Your task to perform on an android device: Open Yahoo.com Image 0: 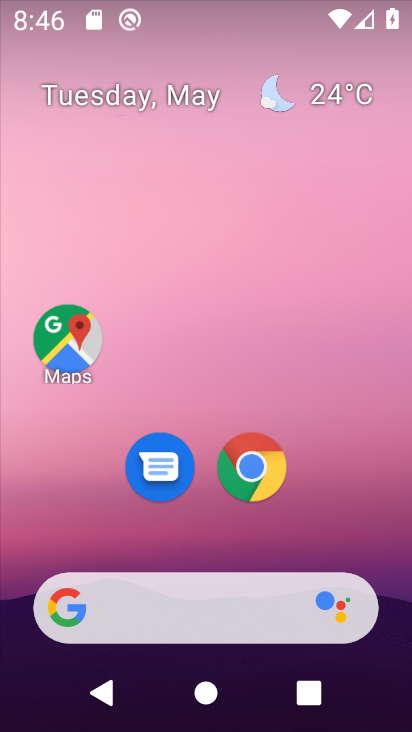
Step 0: click (234, 463)
Your task to perform on an android device: Open Yahoo.com Image 1: 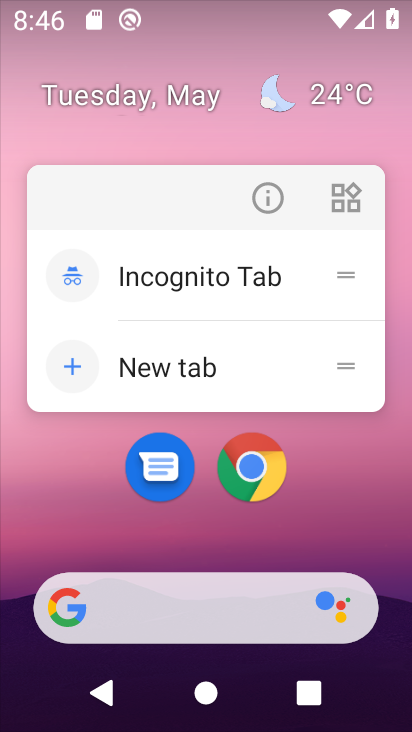
Step 1: click (262, 478)
Your task to perform on an android device: Open Yahoo.com Image 2: 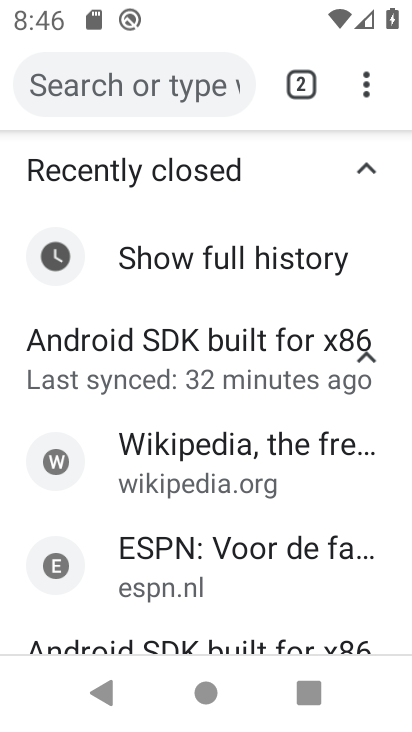
Step 2: click (237, 84)
Your task to perform on an android device: Open Yahoo.com Image 3: 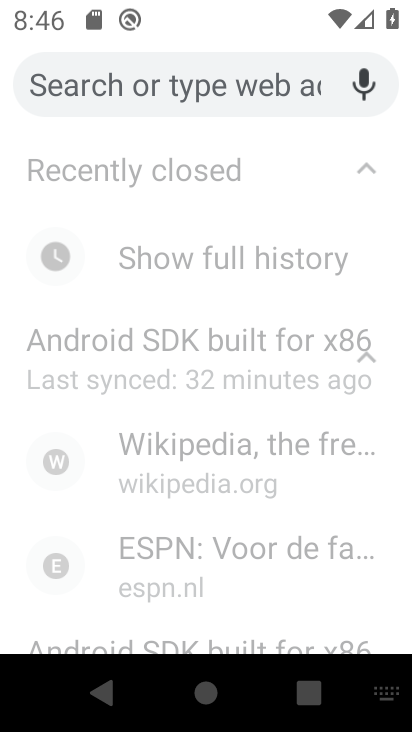
Step 3: type "Yahoo.com"
Your task to perform on an android device: Open Yahoo.com Image 4: 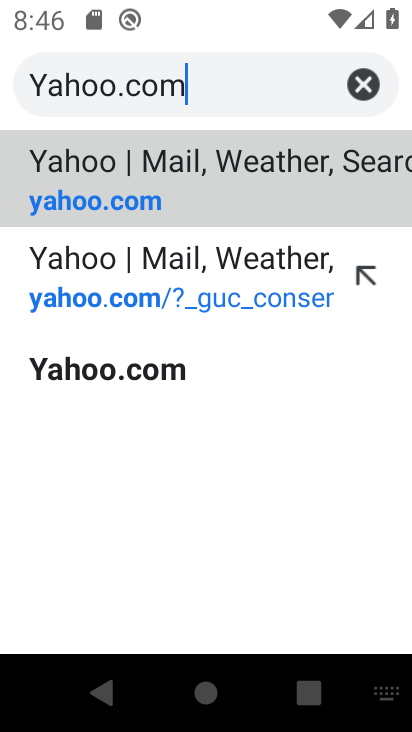
Step 4: click (174, 368)
Your task to perform on an android device: Open Yahoo.com Image 5: 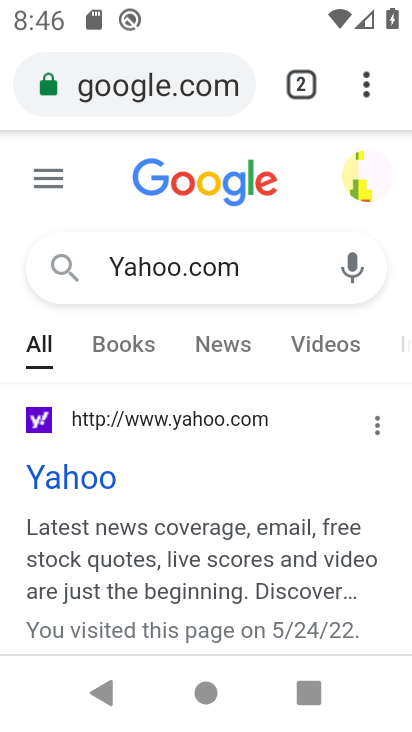
Step 5: task complete